Your task to perform on an android device: Find coffee shops on Maps Image 0: 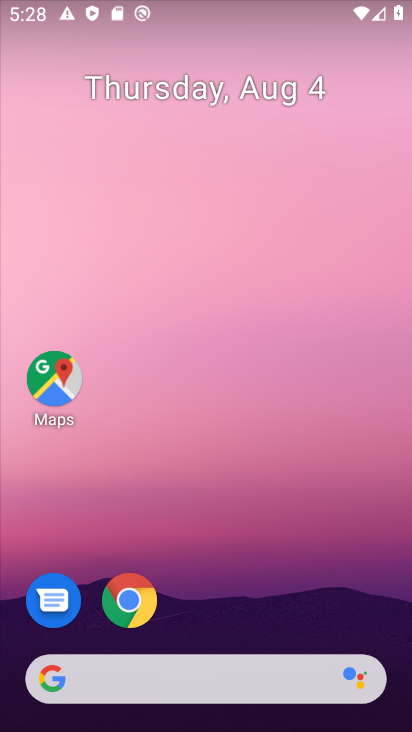
Step 0: click (64, 368)
Your task to perform on an android device: Find coffee shops on Maps Image 1: 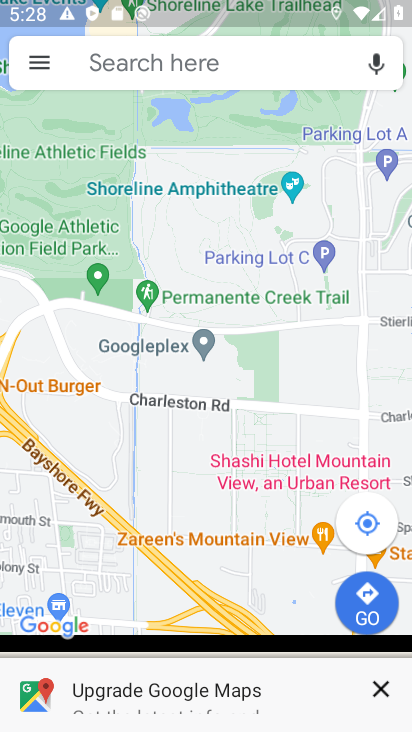
Step 1: click (142, 68)
Your task to perform on an android device: Find coffee shops on Maps Image 2: 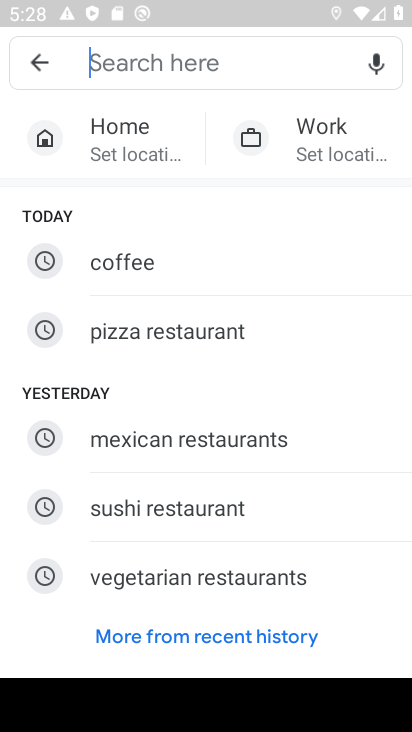
Step 2: click (164, 249)
Your task to perform on an android device: Find coffee shops on Maps Image 3: 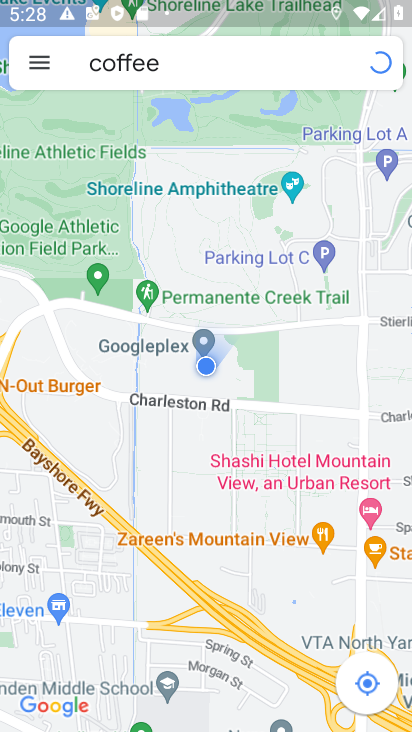
Step 3: click (194, 59)
Your task to perform on an android device: Find coffee shops on Maps Image 4: 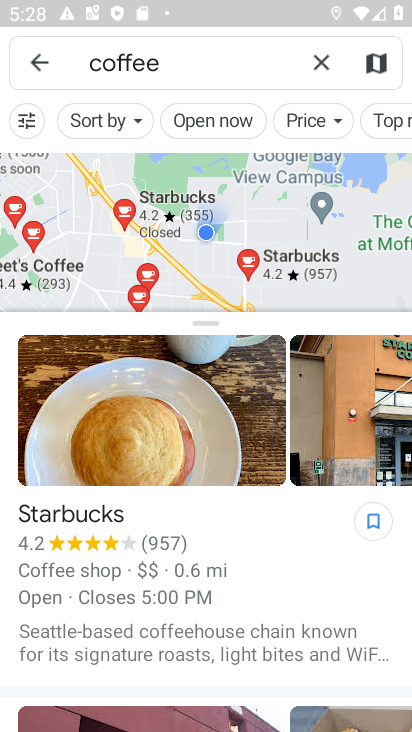
Step 4: task complete